Your task to perform on an android device: Go to Amazon Image 0: 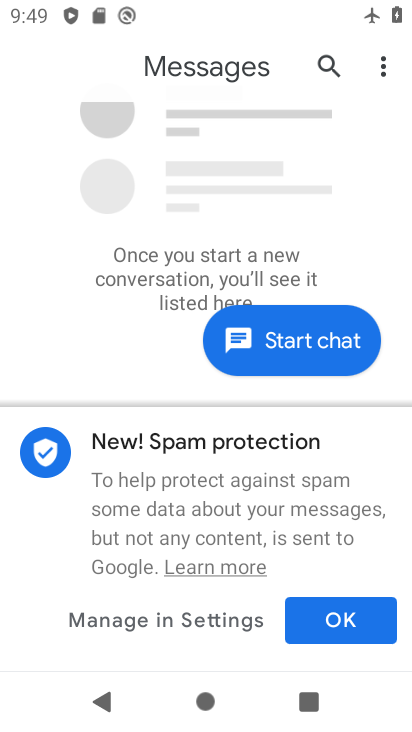
Step 0: press home button
Your task to perform on an android device: Go to Amazon Image 1: 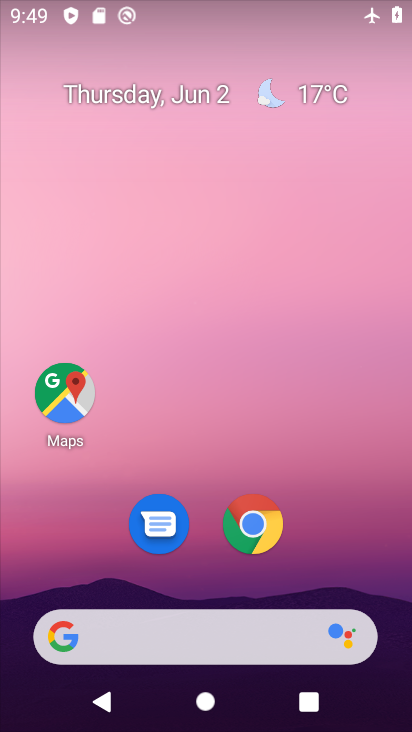
Step 1: click (254, 638)
Your task to perform on an android device: Go to Amazon Image 2: 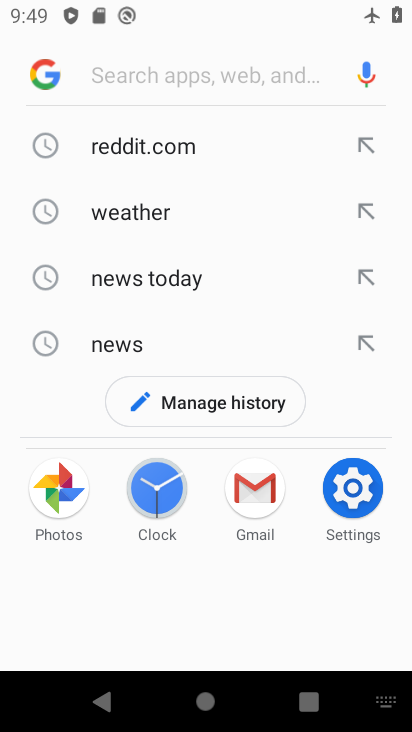
Step 2: type "Amazon"
Your task to perform on an android device: Go to Amazon Image 3: 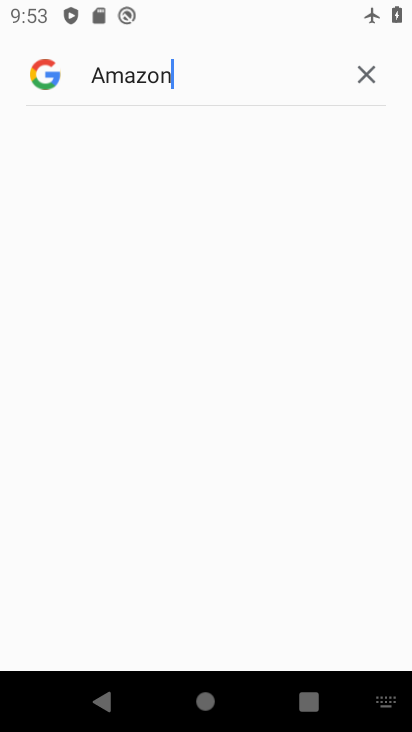
Step 3: task complete